Your task to perform on an android device: change timer sound Image 0: 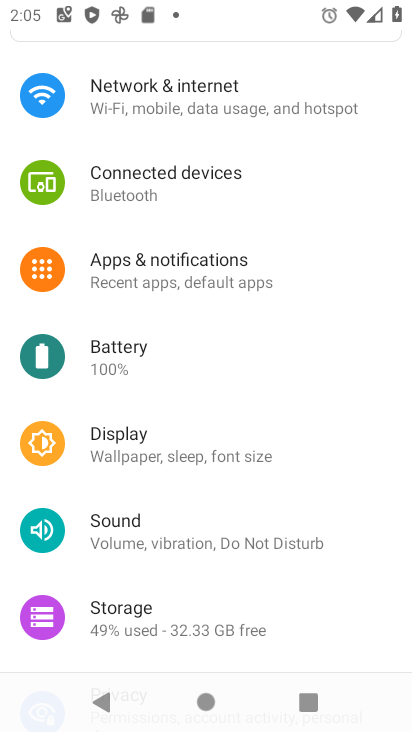
Step 0: press home button
Your task to perform on an android device: change timer sound Image 1: 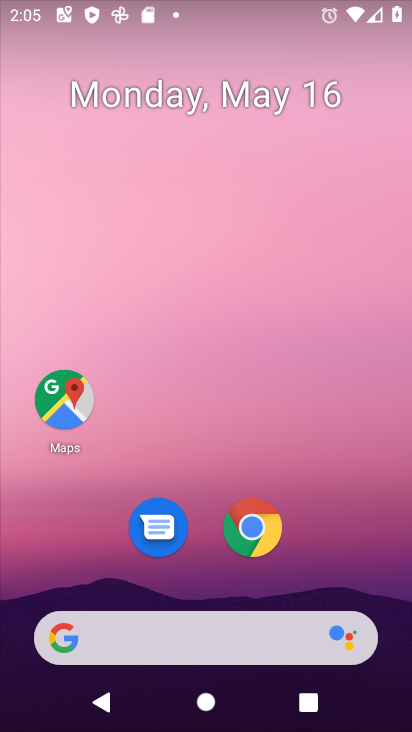
Step 1: drag from (348, 579) to (271, 4)
Your task to perform on an android device: change timer sound Image 2: 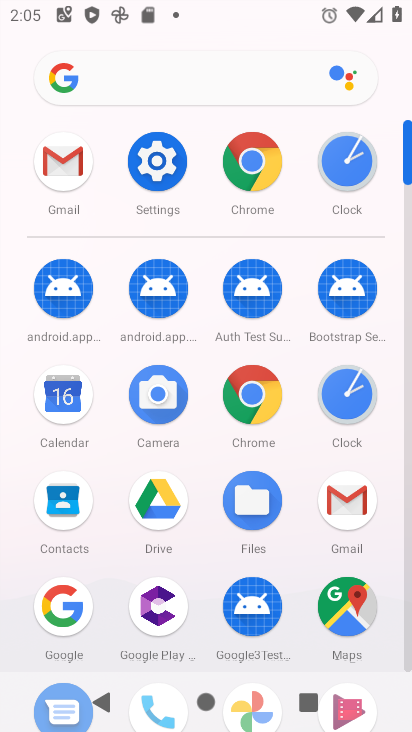
Step 2: click (337, 181)
Your task to perform on an android device: change timer sound Image 3: 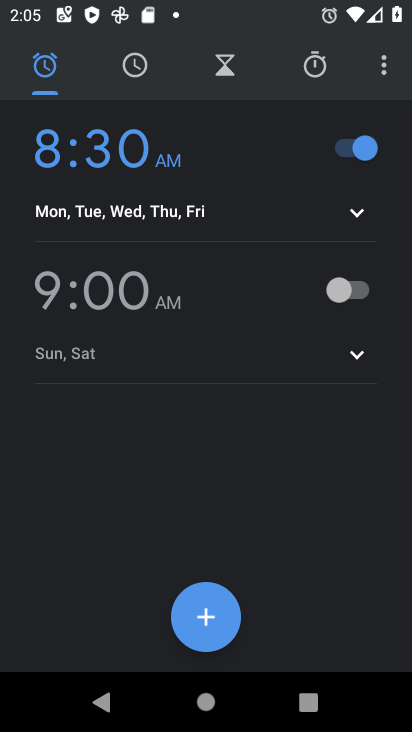
Step 3: click (387, 67)
Your task to perform on an android device: change timer sound Image 4: 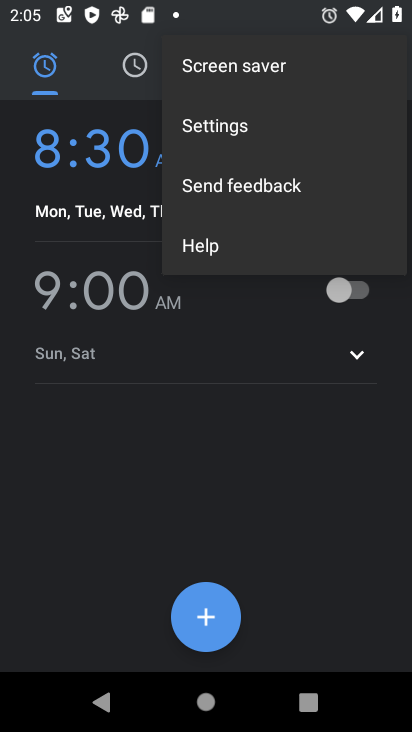
Step 4: click (276, 149)
Your task to perform on an android device: change timer sound Image 5: 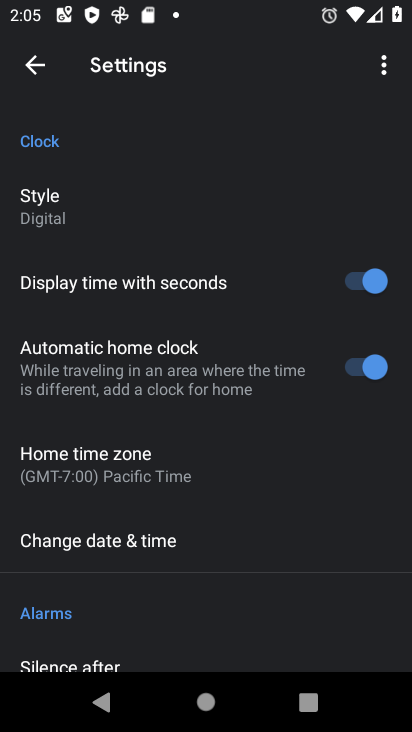
Step 5: drag from (205, 543) to (230, 227)
Your task to perform on an android device: change timer sound Image 6: 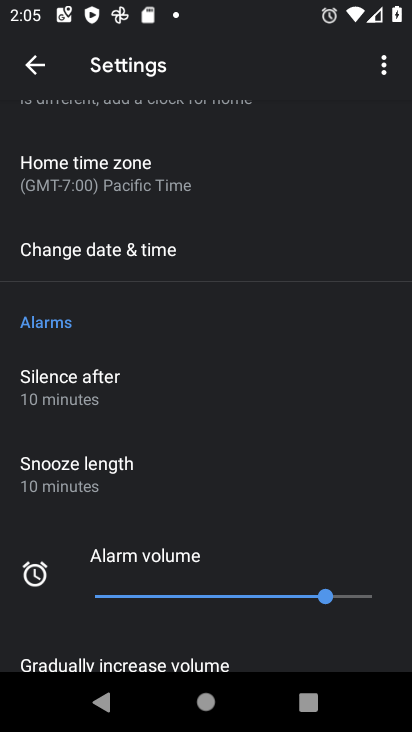
Step 6: drag from (226, 500) to (289, 214)
Your task to perform on an android device: change timer sound Image 7: 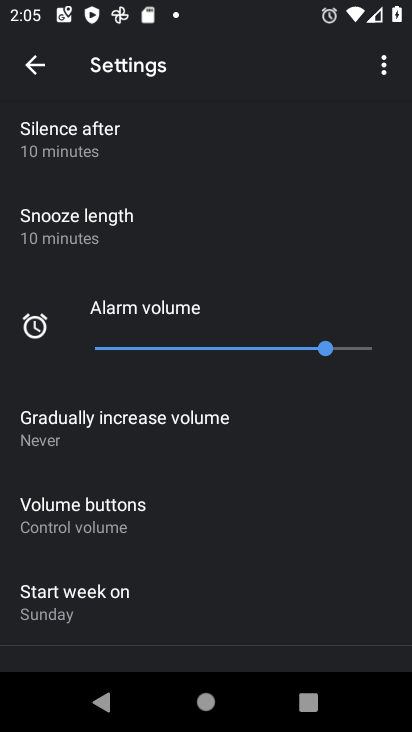
Step 7: drag from (240, 492) to (291, 198)
Your task to perform on an android device: change timer sound Image 8: 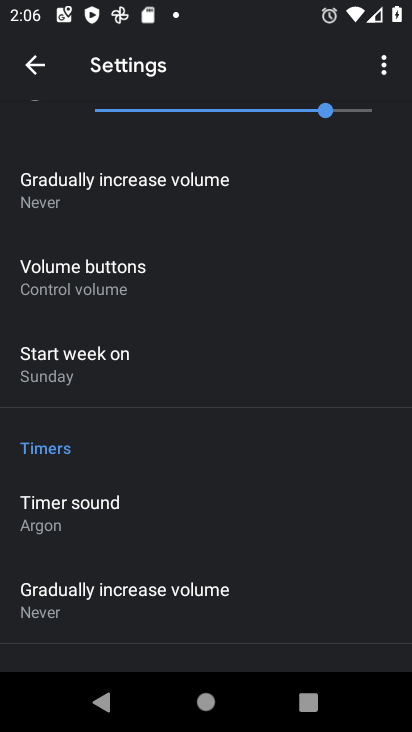
Step 8: click (295, 502)
Your task to perform on an android device: change timer sound Image 9: 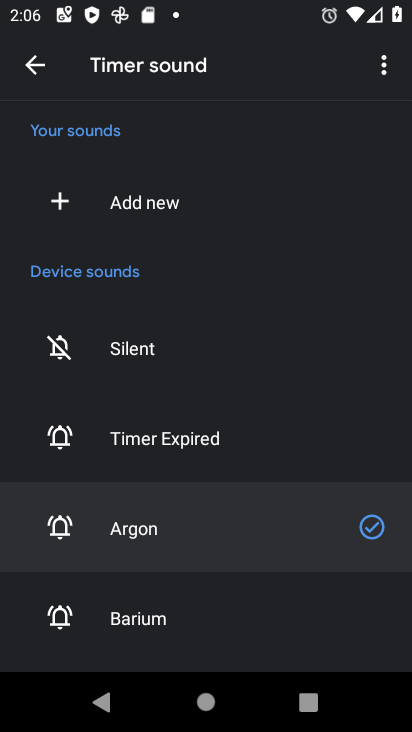
Step 9: click (214, 383)
Your task to perform on an android device: change timer sound Image 10: 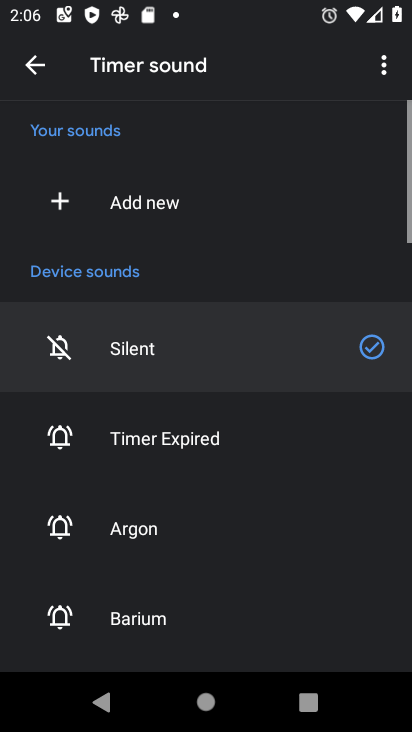
Step 10: task complete